Your task to perform on an android device: Open eBay Image 0: 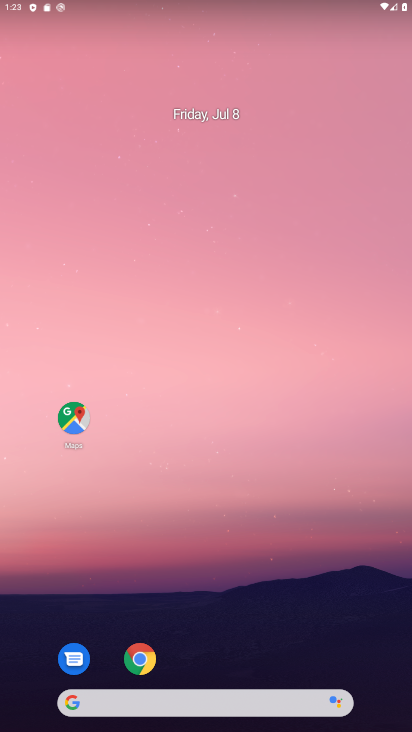
Step 0: click (139, 661)
Your task to perform on an android device: Open eBay Image 1: 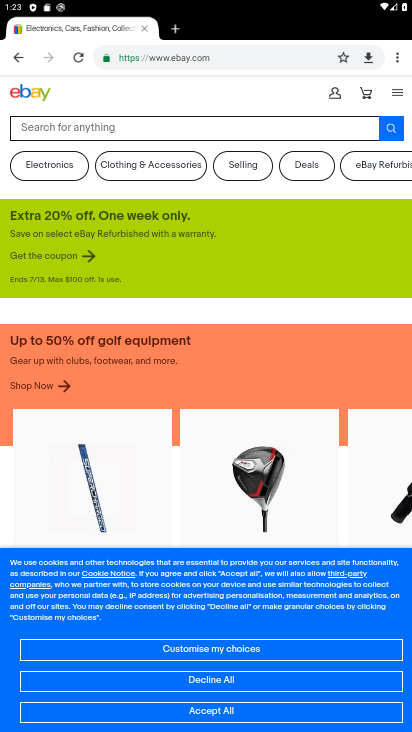
Step 1: task complete